Your task to perform on an android device: change notification settings in the gmail app Image 0: 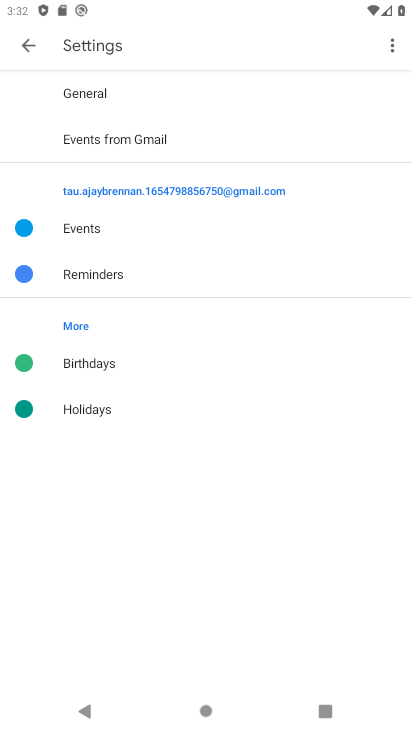
Step 0: press home button
Your task to perform on an android device: change notification settings in the gmail app Image 1: 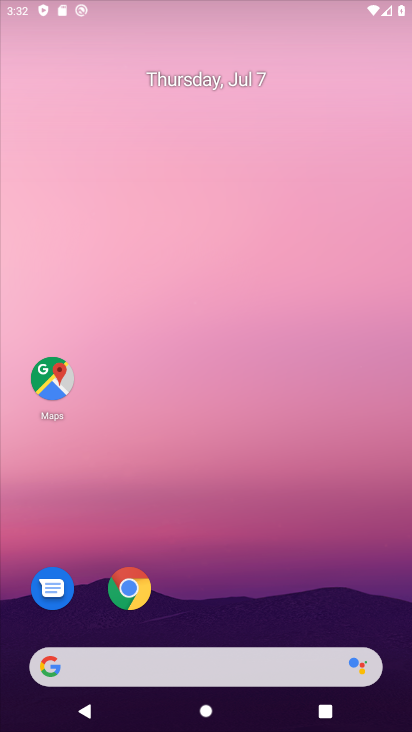
Step 1: drag from (338, 613) to (333, 129)
Your task to perform on an android device: change notification settings in the gmail app Image 2: 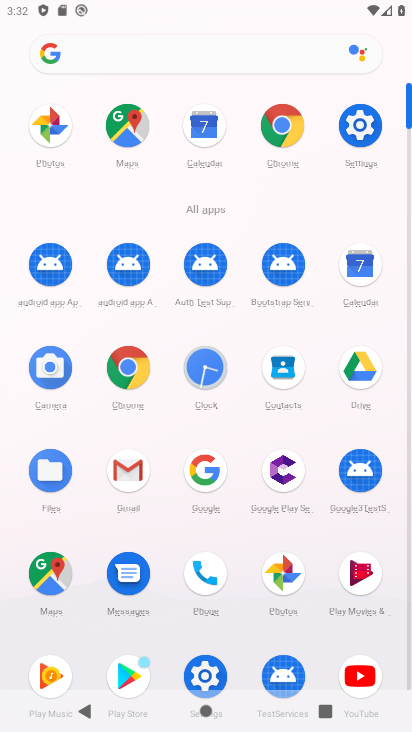
Step 2: click (129, 468)
Your task to perform on an android device: change notification settings in the gmail app Image 3: 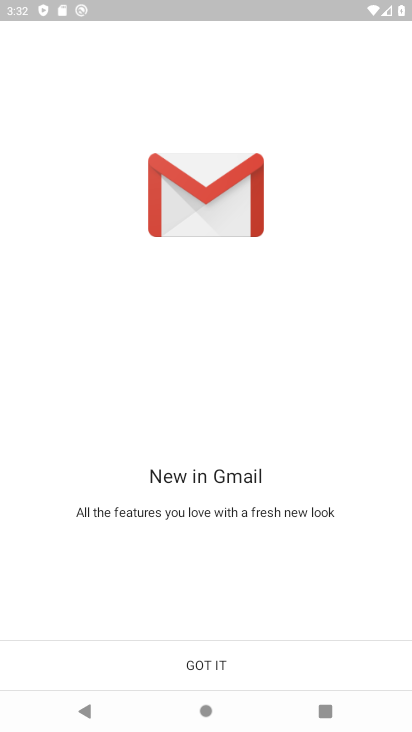
Step 3: click (288, 657)
Your task to perform on an android device: change notification settings in the gmail app Image 4: 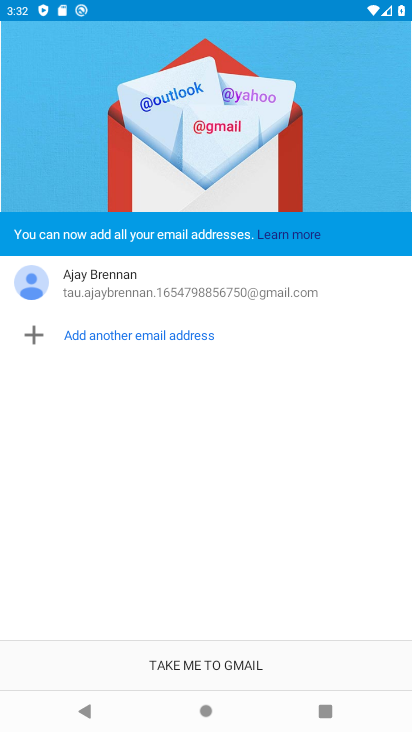
Step 4: click (316, 677)
Your task to perform on an android device: change notification settings in the gmail app Image 5: 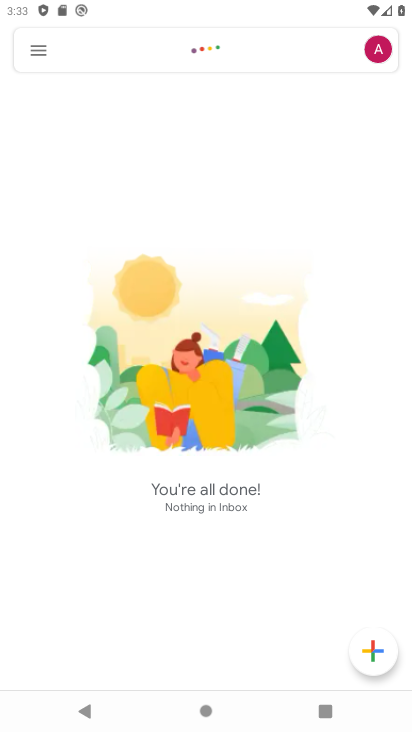
Step 5: click (54, 44)
Your task to perform on an android device: change notification settings in the gmail app Image 6: 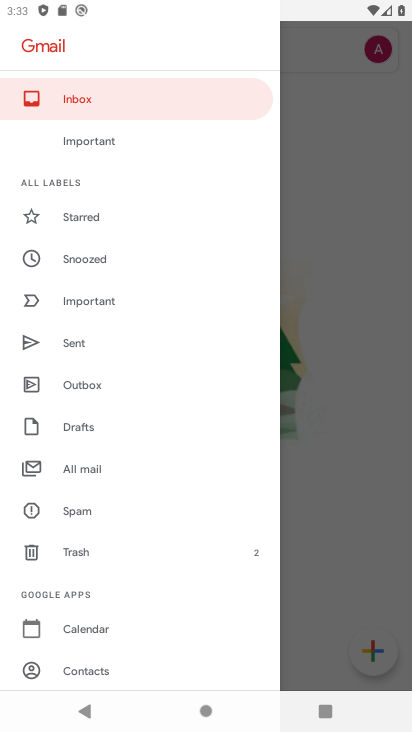
Step 6: drag from (196, 659) to (222, 184)
Your task to perform on an android device: change notification settings in the gmail app Image 7: 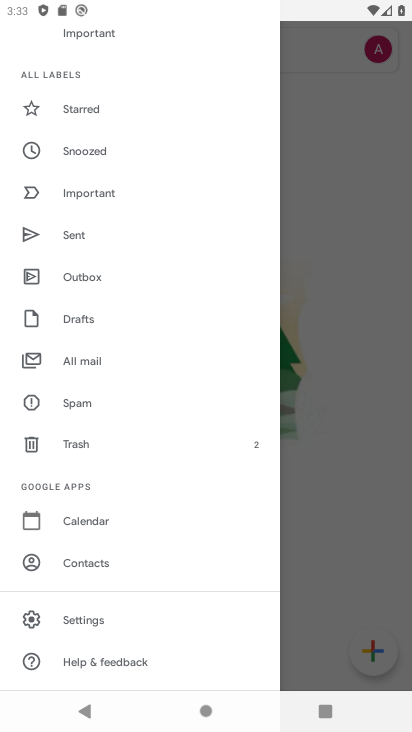
Step 7: click (100, 622)
Your task to perform on an android device: change notification settings in the gmail app Image 8: 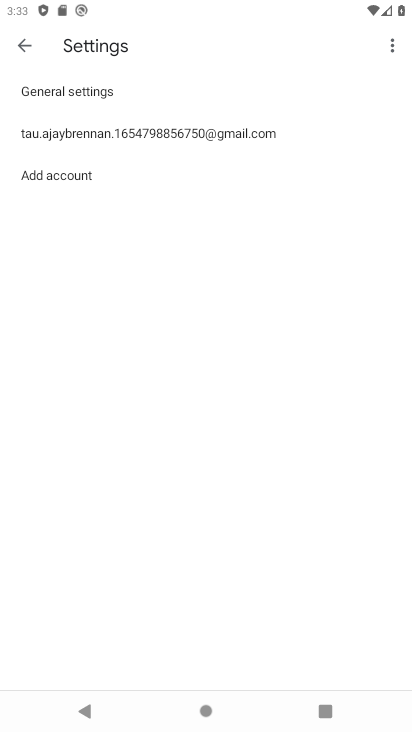
Step 8: click (114, 125)
Your task to perform on an android device: change notification settings in the gmail app Image 9: 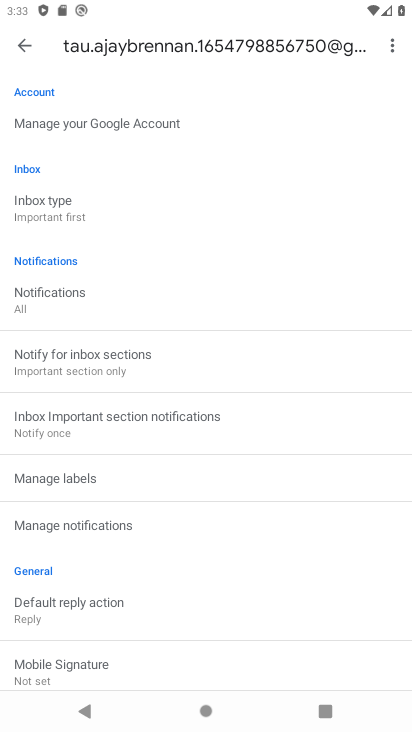
Step 9: click (156, 514)
Your task to perform on an android device: change notification settings in the gmail app Image 10: 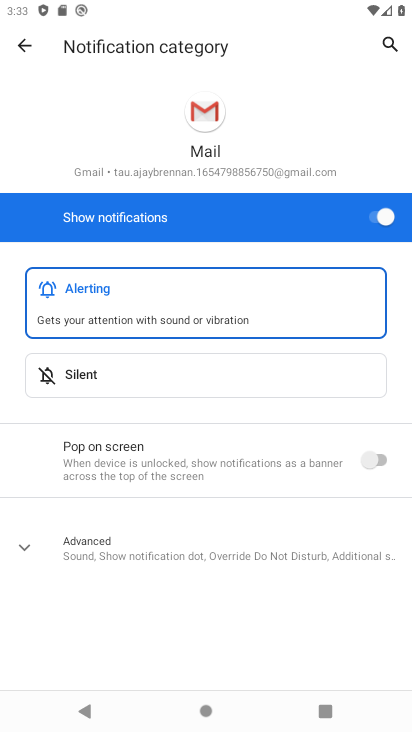
Step 10: click (386, 215)
Your task to perform on an android device: change notification settings in the gmail app Image 11: 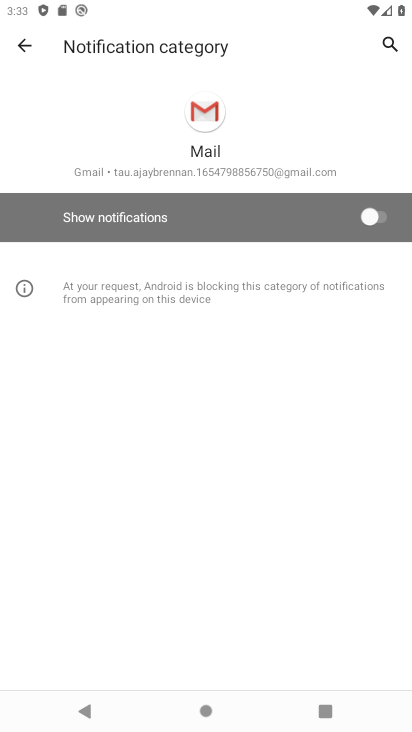
Step 11: task complete